Your task to perform on an android device: Open eBay Image 0: 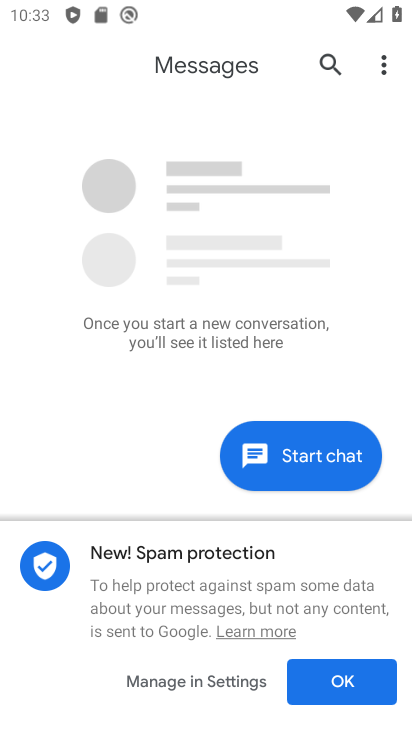
Step 0: press home button
Your task to perform on an android device: Open eBay Image 1: 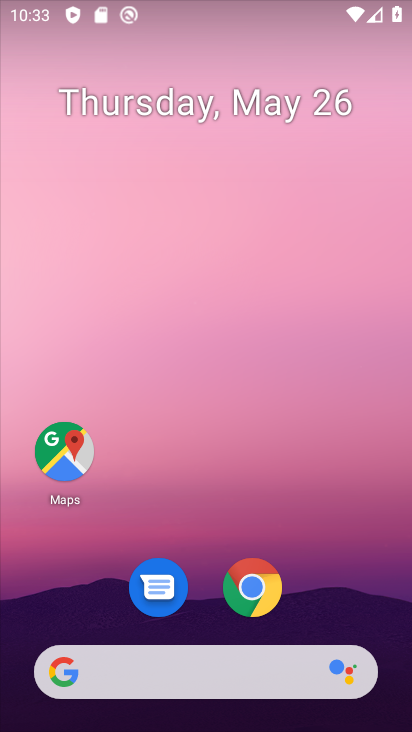
Step 1: drag from (244, 704) to (272, 74)
Your task to perform on an android device: Open eBay Image 2: 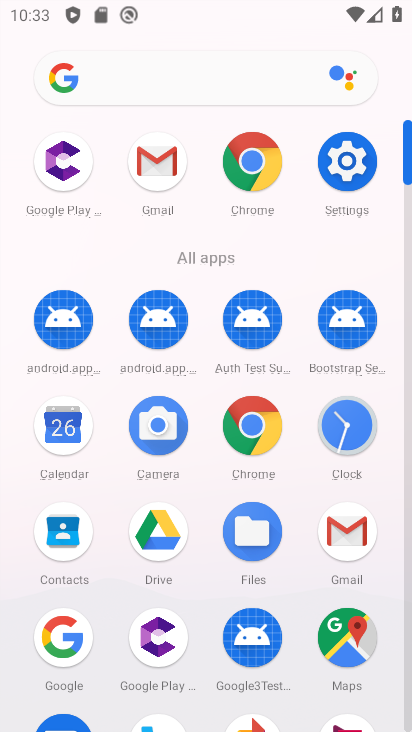
Step 2: click (250, 163)
Your task to perform on an android device: Open eBay Image 3: 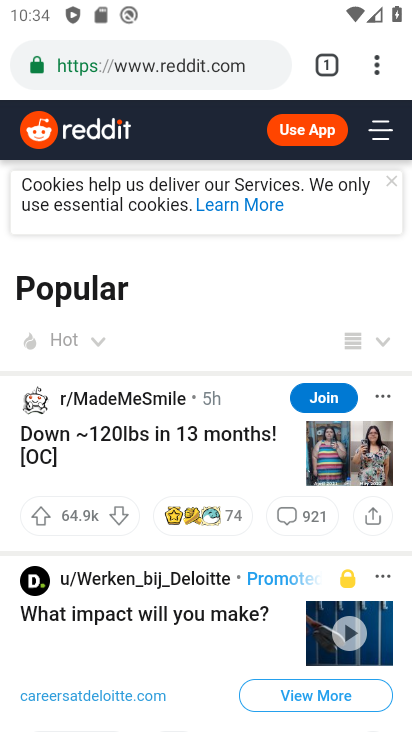
Step 3: click (141, 65)
Your task to perform on an android device: Open eBay Image 4: 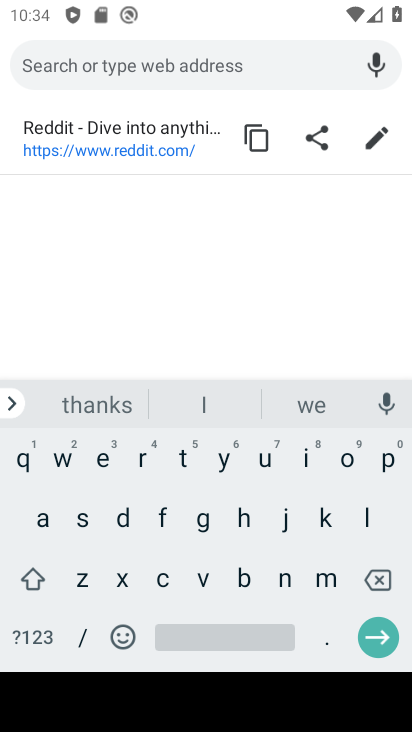
Step 4: click (104, 464)
Your task to perform on an android device: Open eBay Image 5: 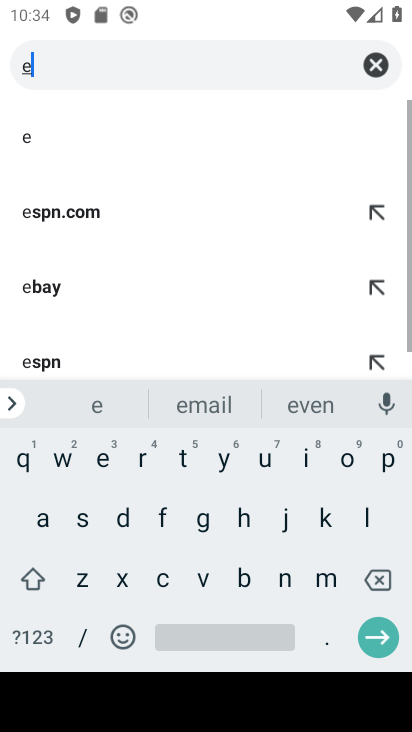
Step 5: click (246, 583)
Your task to perform on an android device: Open eBay Image 6: 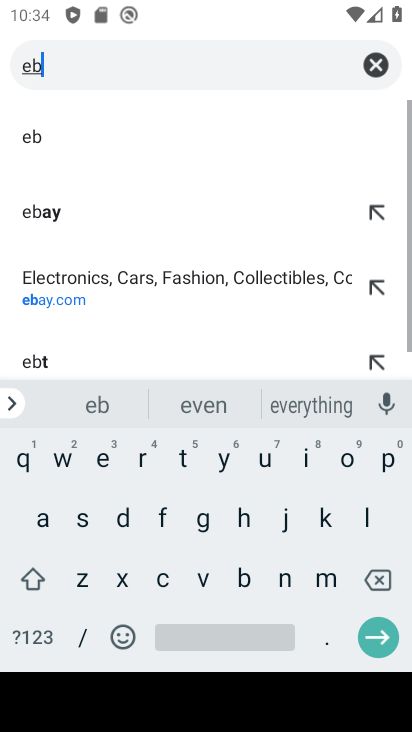
Step 6: click (73, 205)
Your task to perform on an android device: Open eBay Image 7: 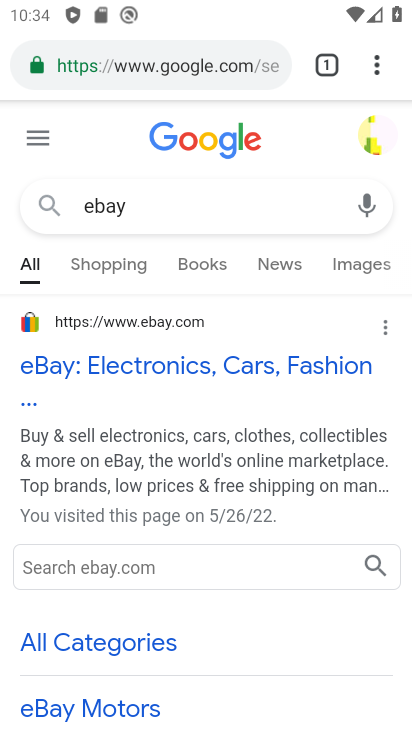
Step 7: click (156, 365)
Your task to perform on an android device: Open eBay Image 8: 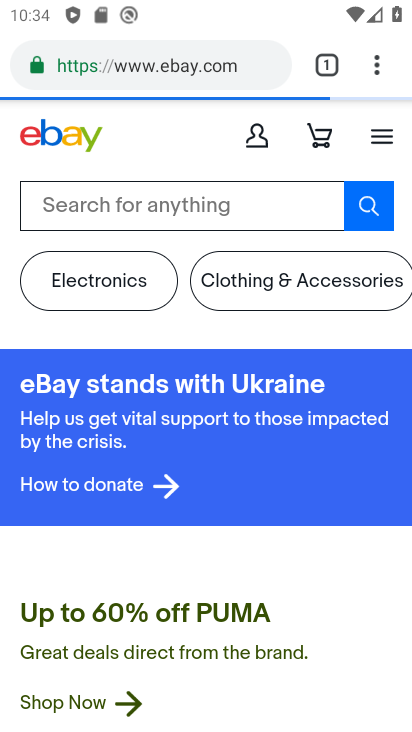
Step 8: task complete